Your task to perform on an android device: change timer sound Image 0: 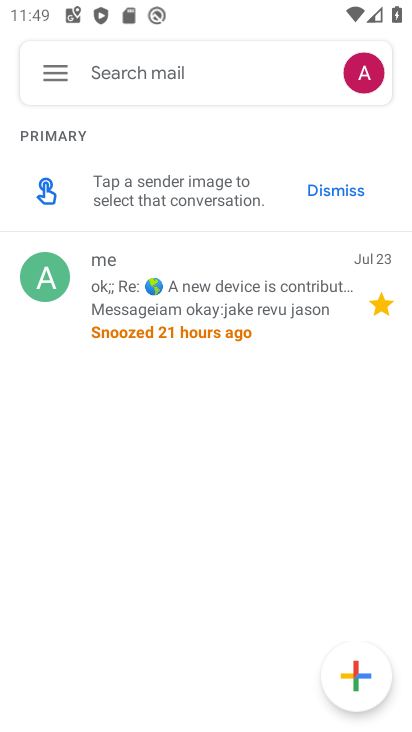
Step 0: press home button
Your task to perform on an android device: change timer sound Image 1: 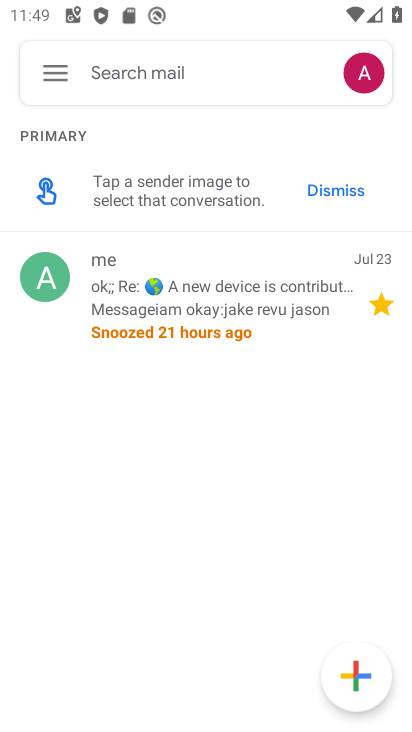
Step 1: press home button
Your task to perform on an android device: change timer sound Image 2: 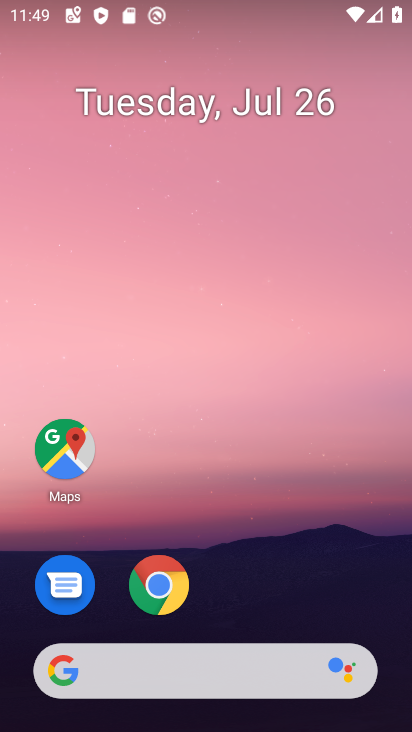
Step 2: drag from (264, 541) to (329, 22)
Your task to perform on an android device: change timer sound Image 3: 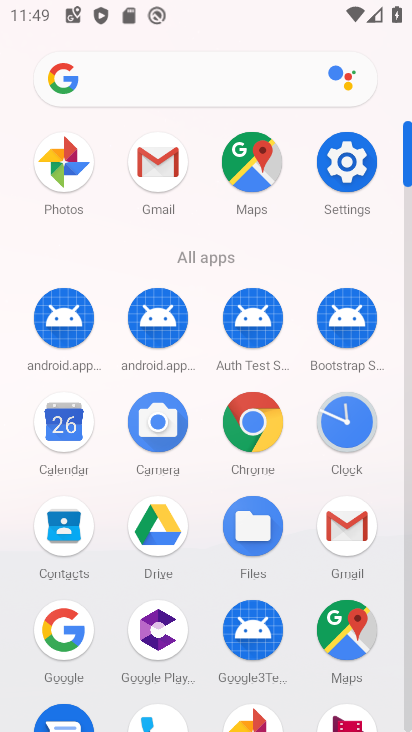
Step 3: click (336, 160)
Your task to perform on an android device: change timer sound Image 4: 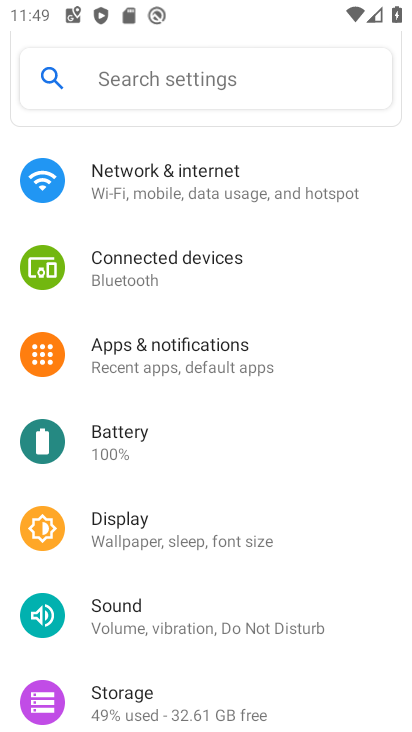
Step 4: press back button
Your task to perform on an android device: change timer sound Image 5: 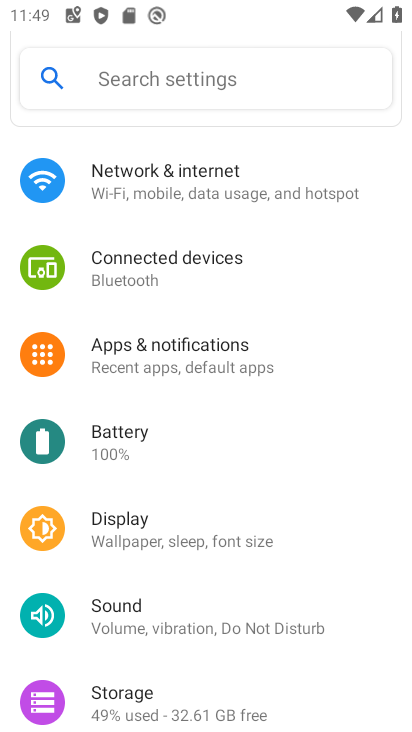
Step 5: press back button
Your task to perform on an android device: change timer sound Image 6: 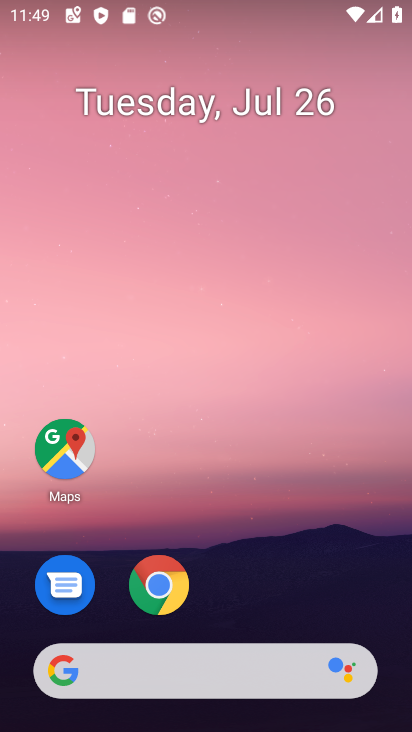
Step 6: drag from (297, 534) to (324, 106)
Your task to perform on an android device: change timer sound Image 7: 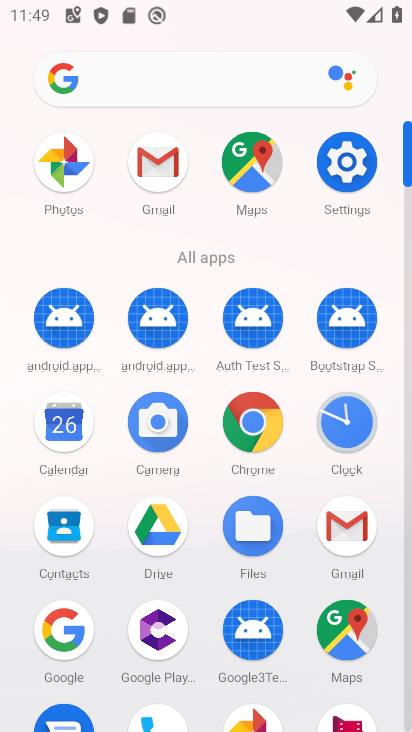
Step 7: click (349, 416)
Your task to perform on an android device: change timer sound Image 8: 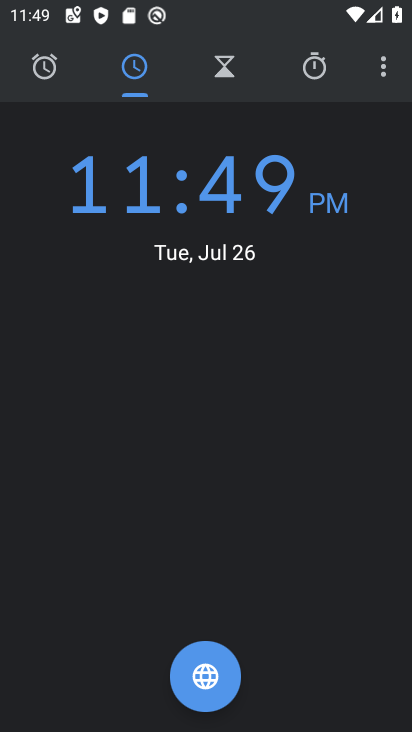
Step 8: click (379, 71)
Your task to perform on an android device: change timer sound Image 9: 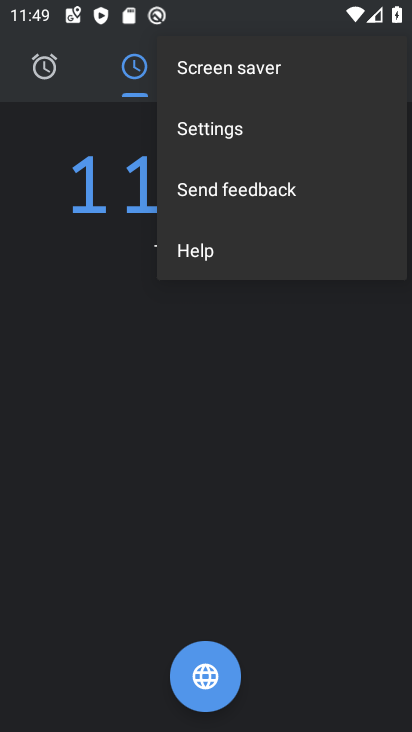
Step 9: click (246, 129)
Your task to perform on an android device: change timer sound Image 10: 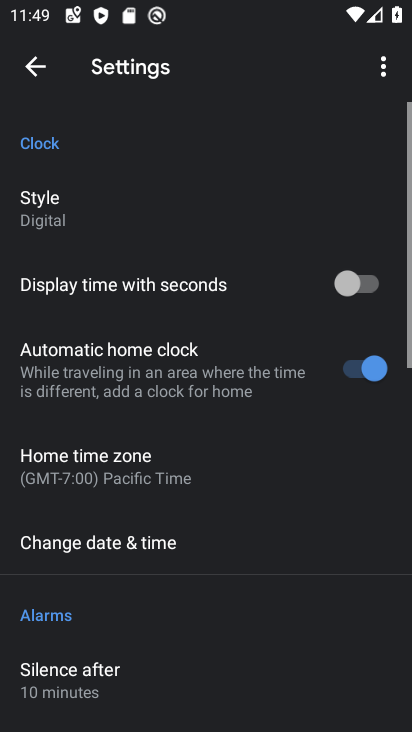
Step 10: drag from (185, 601) to (289, 170)
Your task to perform on an android device: change timer sound Image 11: 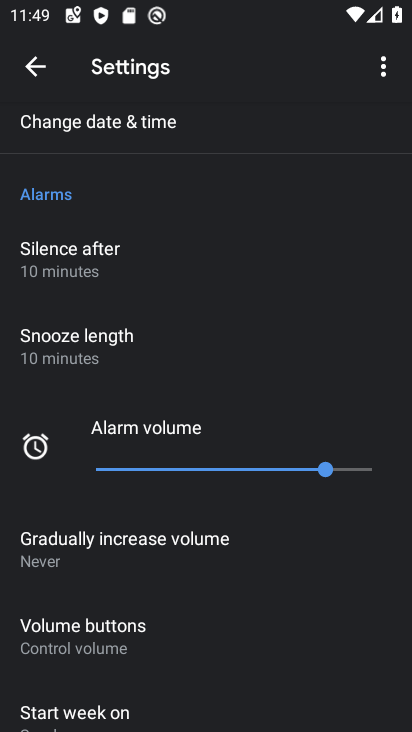
Step 11: drag from (183, 556) to (255, 155)
Your task to perform on an android device: change timer sound Image 12: 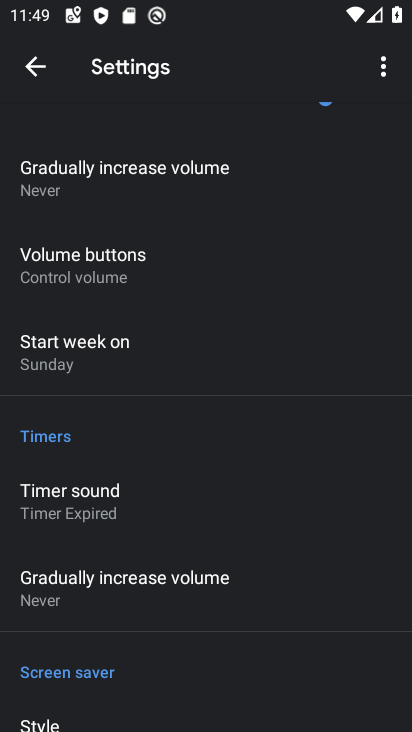
Step 12: click (86, 487)
Your task to perform on an android device: change timer sound Image 13: 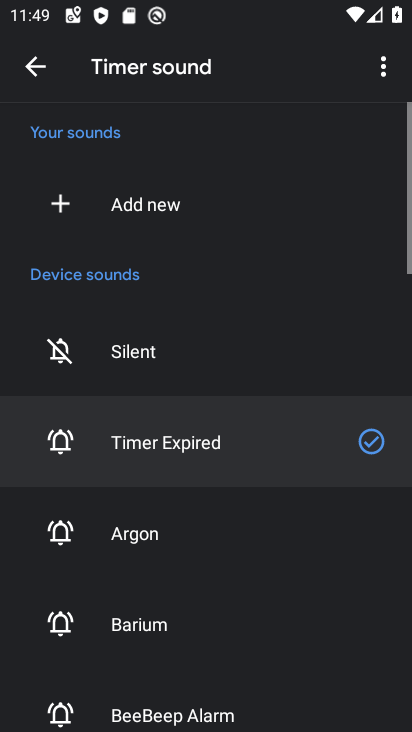
Step 13: click (117, 531)
Your task to perform on an android device: change timer sound Image 14: 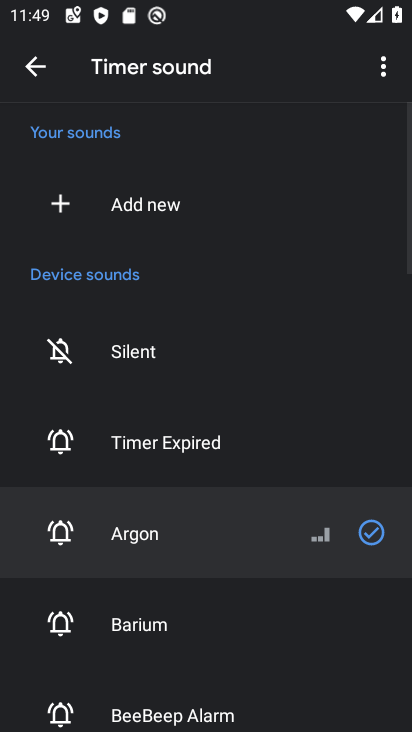
Step 14: task complete